Your task to perform on an android device: Open the calendar and show me this week's events? Image 0: 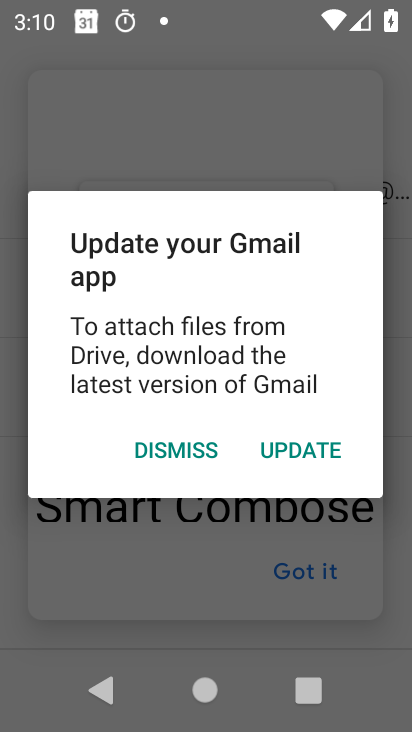
Step 0: press home button
Your task to perform on an android device: Open the calendar and show me this week's events? Image 1: 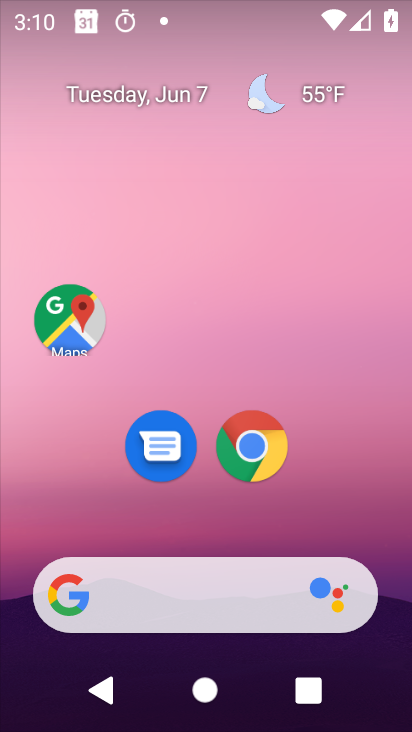
Step 1: drag from (237, 526) to (314, 30)
Your task to perform on an android device: Open the calendar and show me this week's events? Image 2: 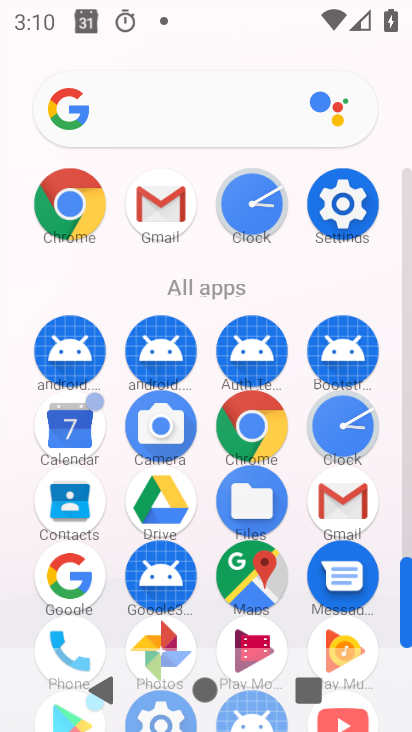
Step 2: click (63, 436)
Your task to perform on an android device: Open the calendar and show me this week's events? Image 3: 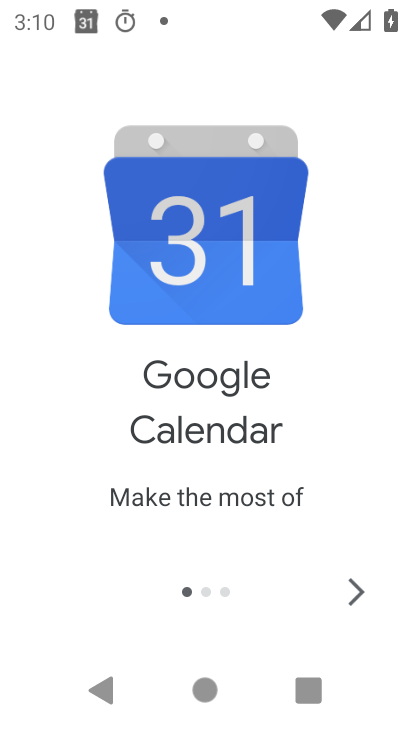
Step 3: click (351, 582)
Your task to perform on an android device: Open the calendar and show me this week's events? Image 4: 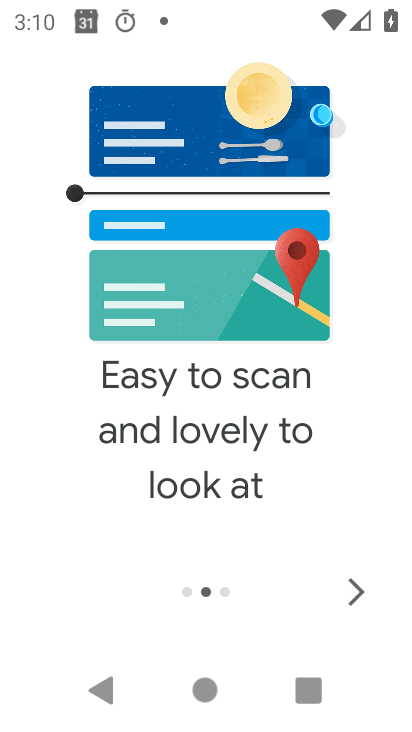
Step 4: click (351, 583)
Your task to perform on an android device: Open the calendar and show me this week's events? Image 5: 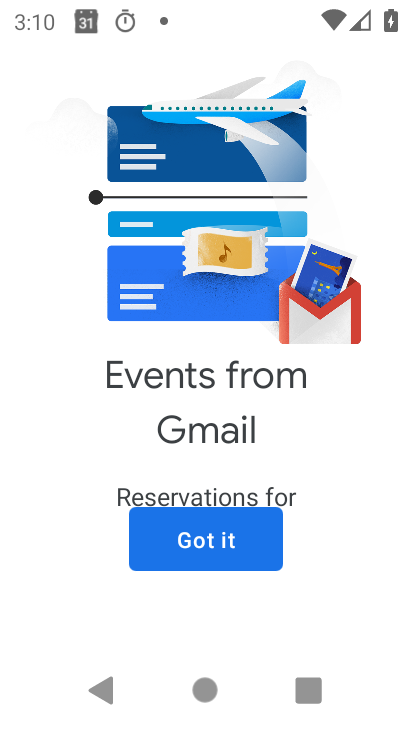
Step 5: click (212, 531)
Your task to perform on an android device: Open the calendar and show me this week's events? Image 6: 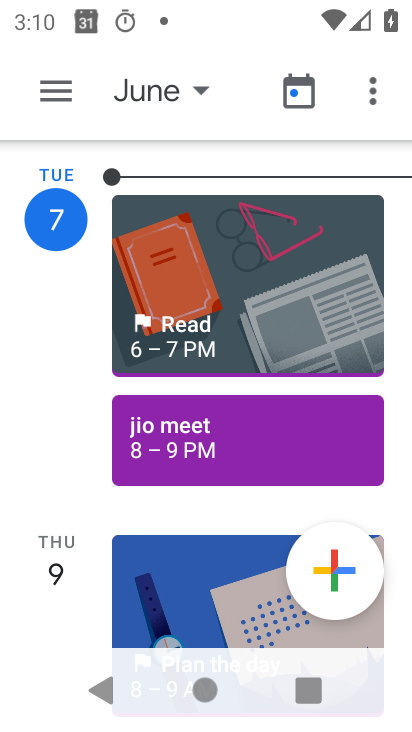
Step 6: click (35, 88)
Your task to perform on an android device: Open the calendar and show me this week's events? Image 7: 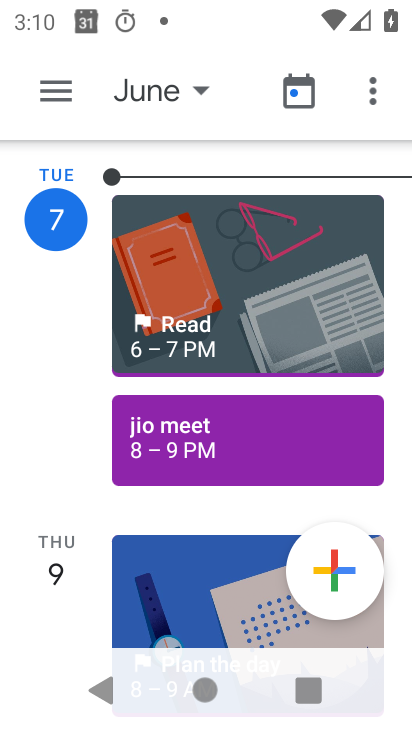
Step 7: click (53, 94)
Your task to perform on an android device: Open the calendar and show me this week's events? Image 8: 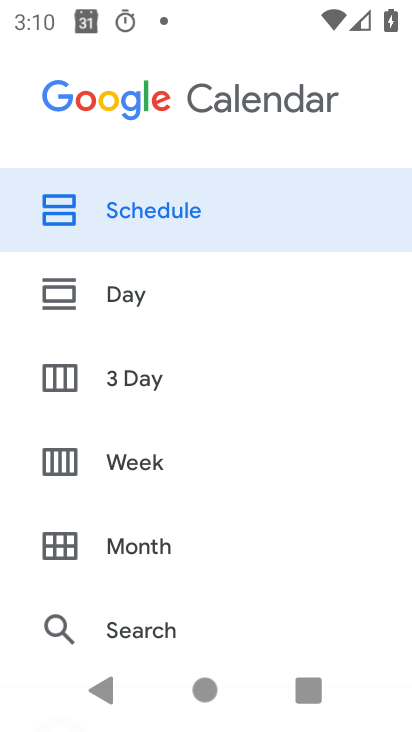
Step 8: click (143, 466)
Your task to perform on an android device: Open the calendar and show me this week's events? Image 9: 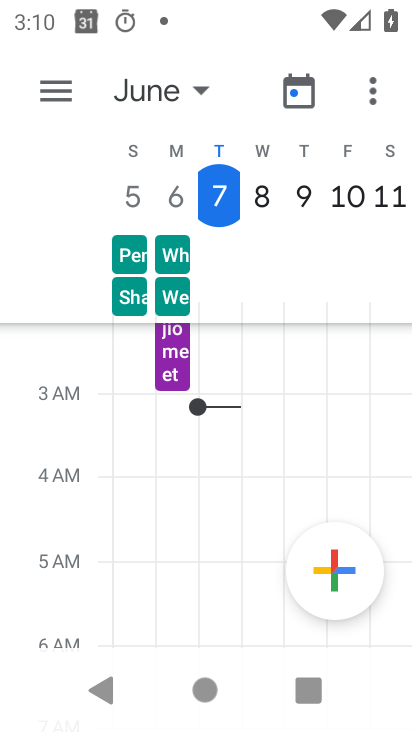
Step 9: click (34, 86)
Your task to perform on an android device: Open the calendar and show me this week's events? Image 10: 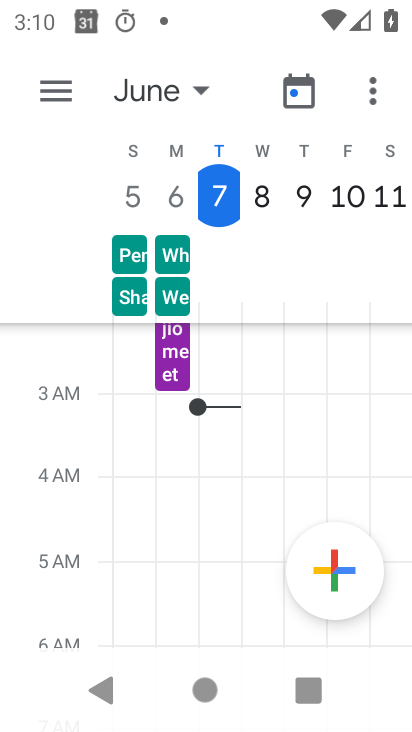
Step 10: click (50, 98)
Your task to perform on an android device: Open the calendar and show me this week's events? Image 11: 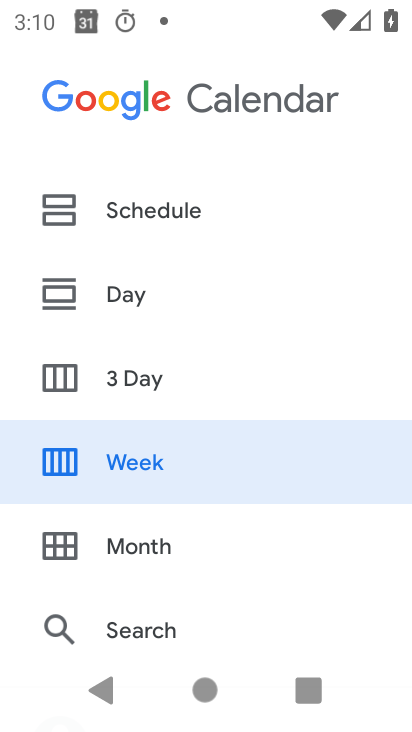
Step 11: drag from (144, 569) to (204, 113)
Your task to perform on an android device: Open the calendar and show me this week's events? Image 12: 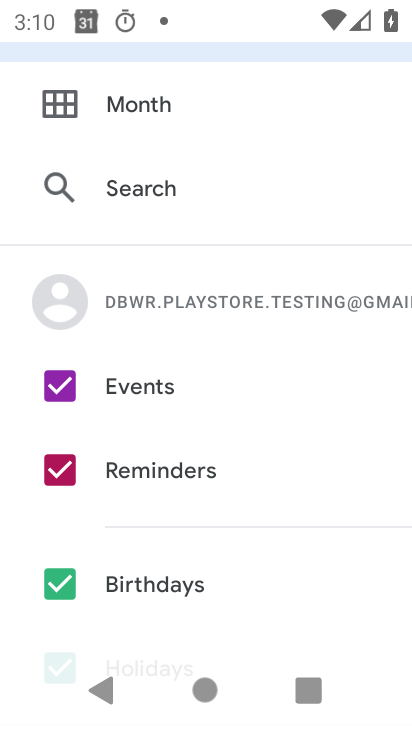
Step 12: click (189, 480)
Your task to perform on an android device: Open the calendar and show me this week's events? Image 13: 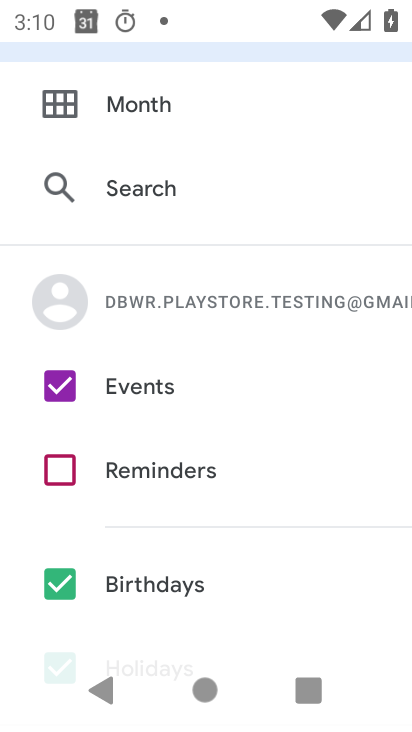
Step 13: click (134, 578)
Your task to perform on an android device: Open the calendar and show me this week's events? Image 14: 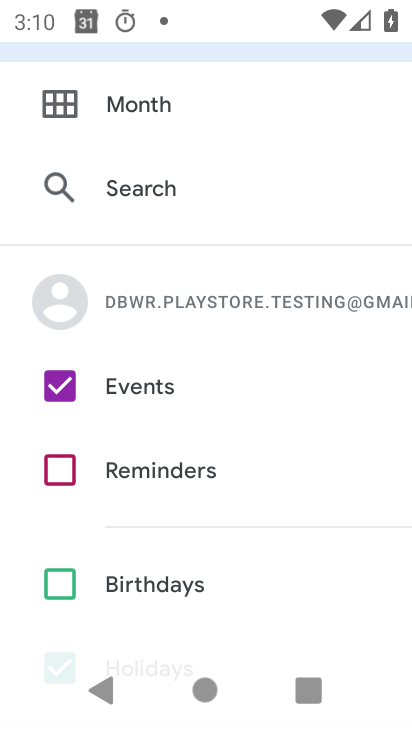
Step 14: drag from (228, 558) to (264, 263)
Your task to perform on an android device: Open the calendar and show me this week's events? Image 15: 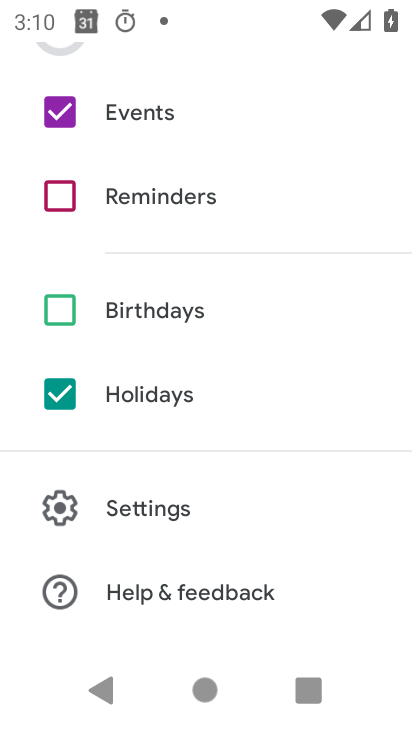
Step 15: click (127, 390)
Your task to perform on an android device: Open the calendar and show me this week's events? Image 16: 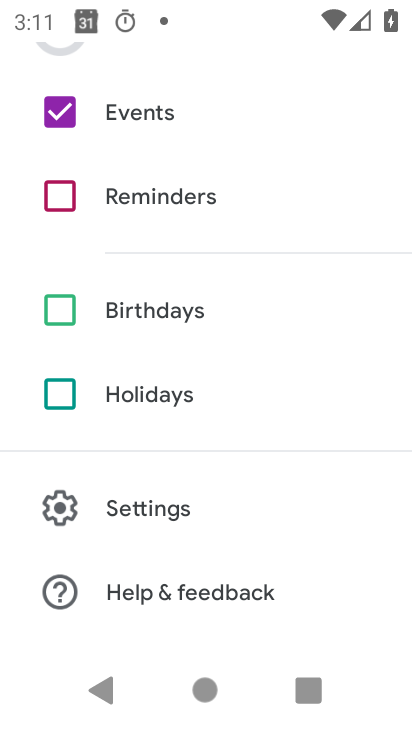
Step 16: drag from (267, 261) to (226, 684)
Your task to perform on an android device: Open the calendar and show me this week's events? Image 17: 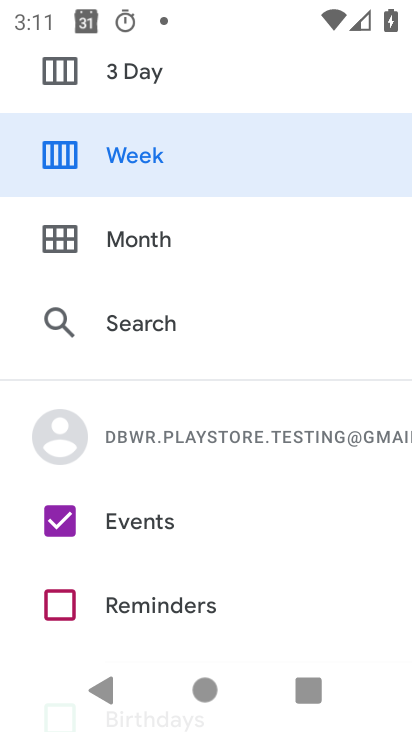
Step 17: click (173, 166)
Your task to perform on an android device: Open the calendar and show me this week's events? Image 18: 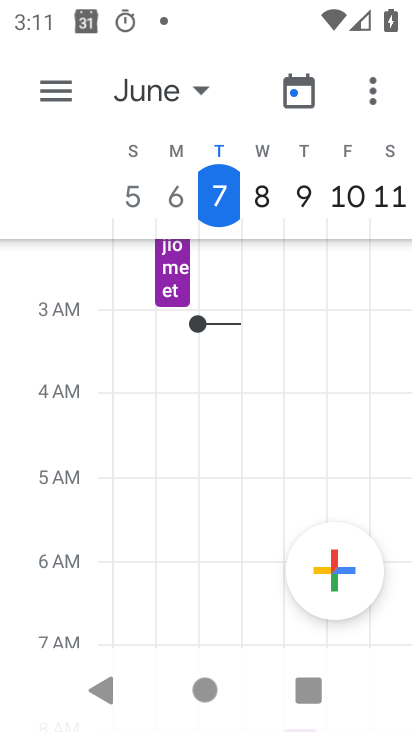
Step 18: task complete